Your task to perform on an android device: Go to notification settings Image 0: 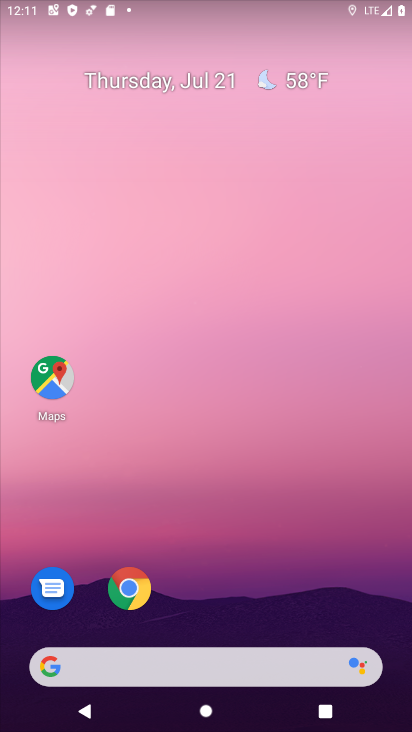
Step 0: drag from (236, 622) to (203, 99)
Your task to perform on an android device: Go to notification settings Image 1: 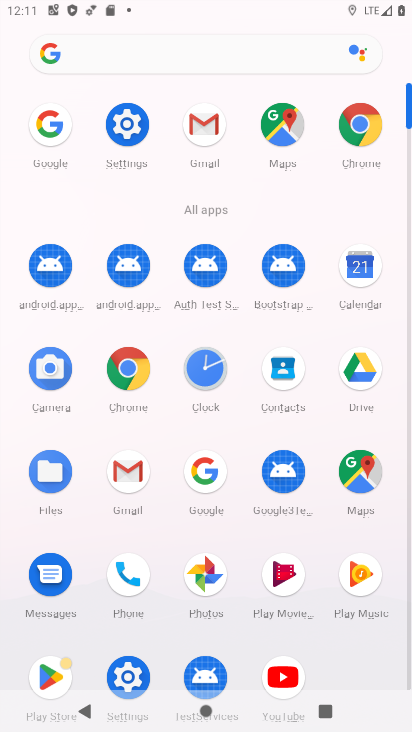
Step 1: click (120, 131)
Your task to perform on an android device: Go to notification settings Image 2: 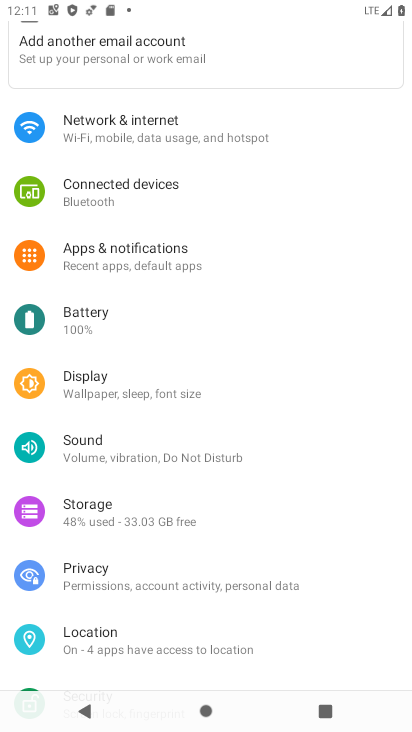
Step 2: click (128, 248)
Your task to perform on an android device: Go to notification settings Image 3: 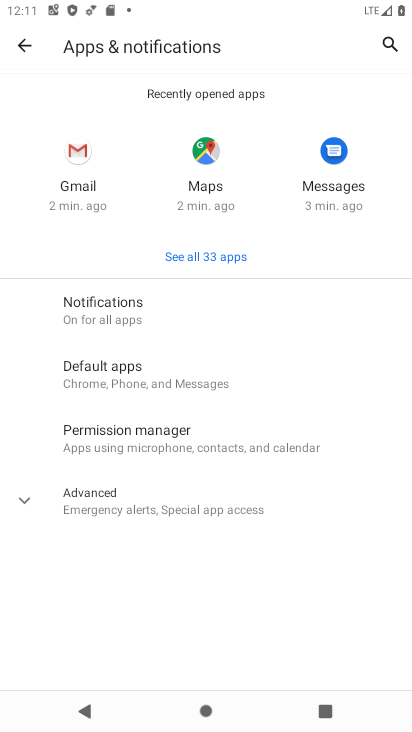
Step 3: click (135, 310)
Your task to perform on an android device: Go to notification settings Image 4: 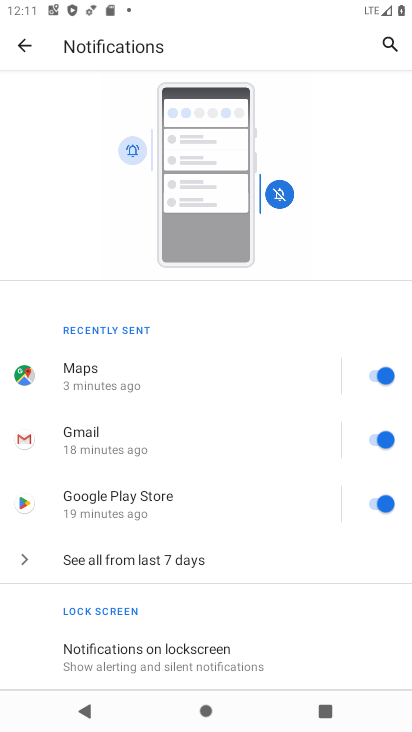
Step 4: task complete